Your task to perform on an android device: Go to battery settings Image 0: 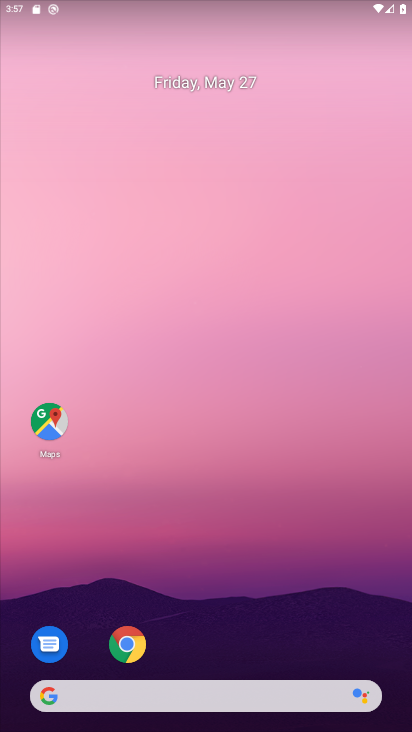
Step 0: drag from (292, 576) to (199, 110)
Your task to perform on an android device: Go to battery settings Image 1: 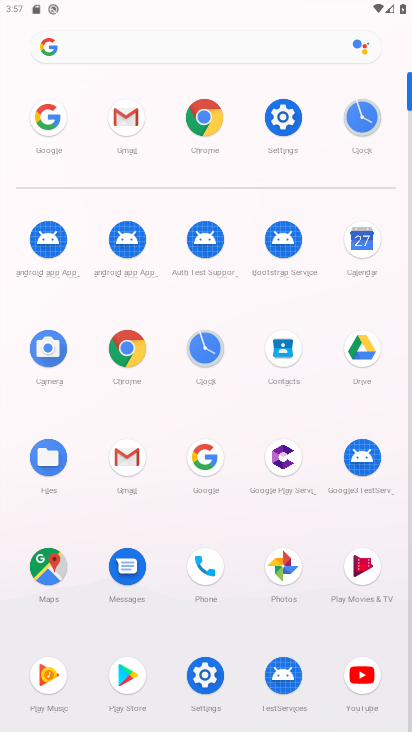
Step 1: click (282, 108)
Your task to perform on an android device: Go to battery settings Image 2: 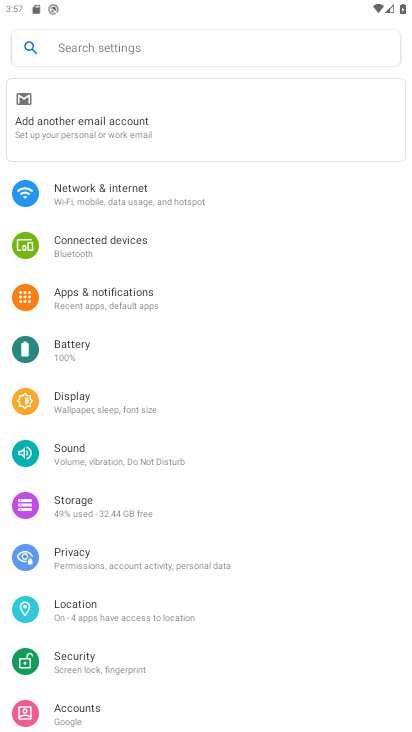
Step 2: click (110, 355)
Your task to perform on an android device: Go to battery settings Image 3: 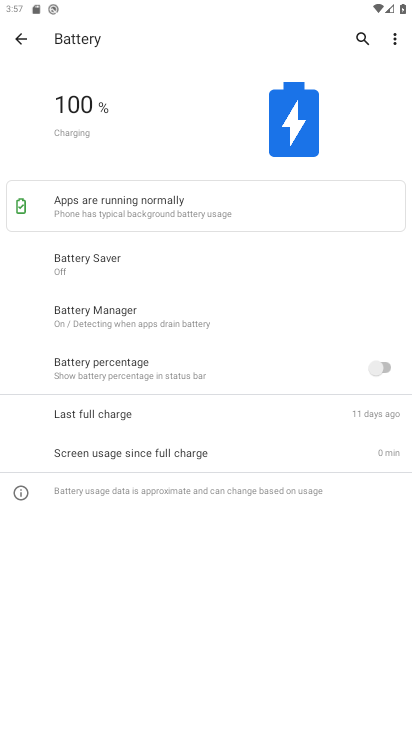
Step 3: task complete